Your task to perform on an android device: Search for sushi restaurants on Maps Image 0: 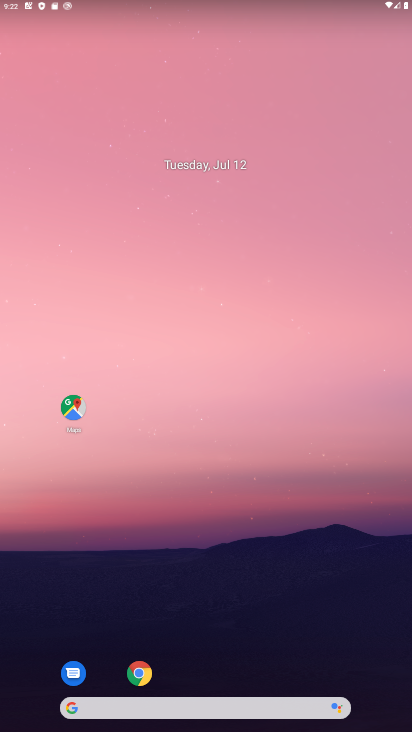
Step 0: click (74, 416)
Your task to perform on an android device: Search for sushi restaurants on Maps Image 1: 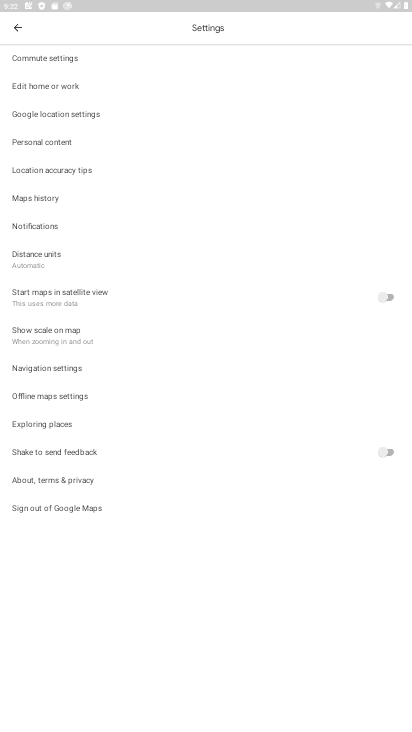
Step 1: click (14, 28)
Your task to perform on an android device: Search for sushi restaurants on Maps Image 2: 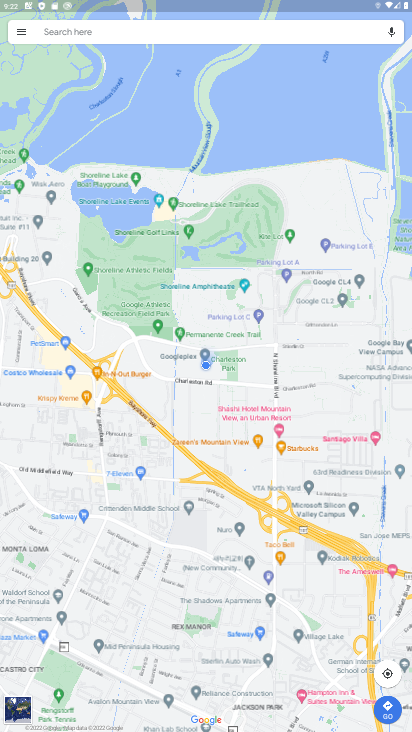
Step 2: click (158, 33)
Your task to perform on an android device: Search for sushi restaurants on Maps Image 3: 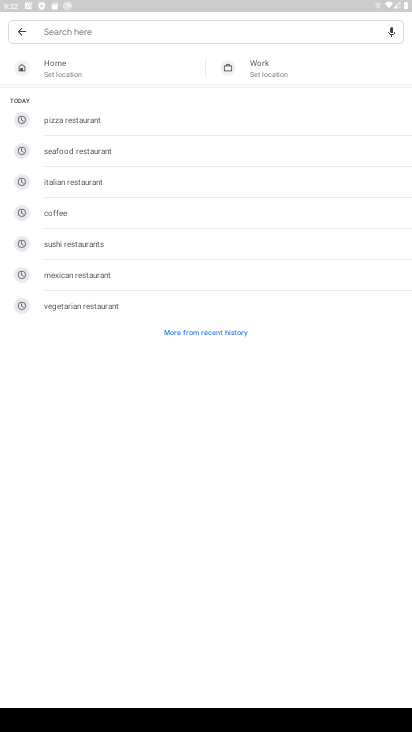
Step 3: type "sushi restaurants"
Your task to perform on an android device: Search for sushi restaurants on Maps Image 4: 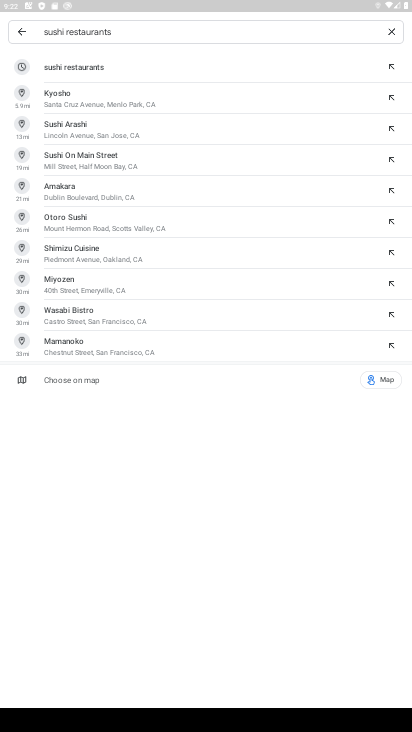
Step 4: click (86, 75)
Your task to perform on an android device: Search for sushi restaurants on Maps Image 5: 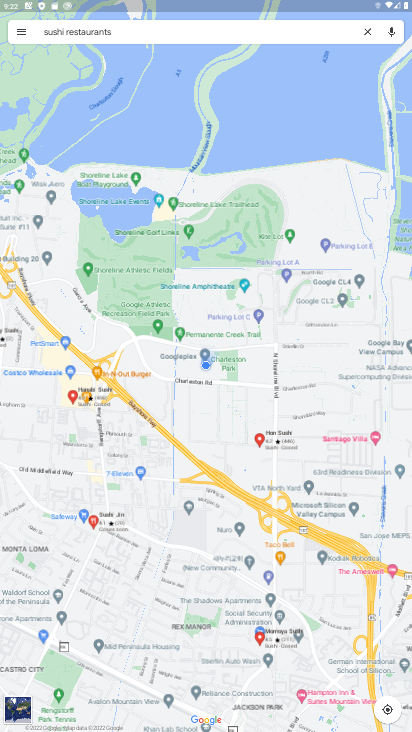
Step 5: click (86, 75)
Your task to perform on an android device: Search for sushi restaurants on Maps Image 6: 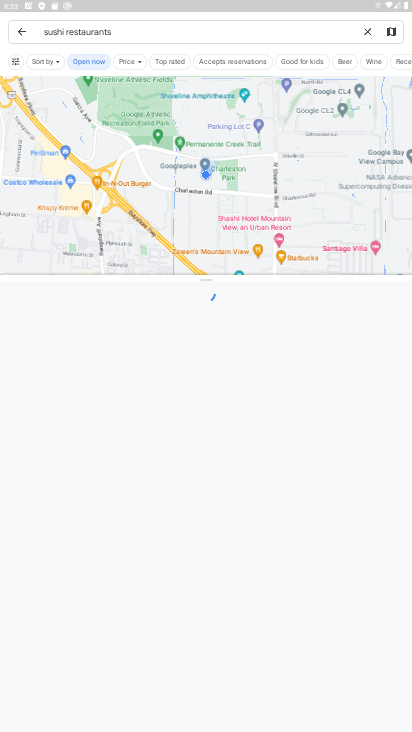
Step 6: task complete